Your task to perform on an android device: toggle pop-ups in chrome Image 0: 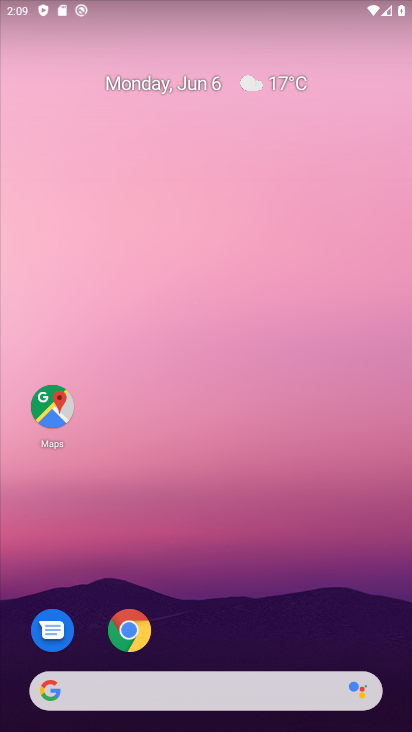
Step 0: drag from (220, 576) to (211, 7)
Your task to perform on an android device: toggle pop-ups in chrome Image 1: 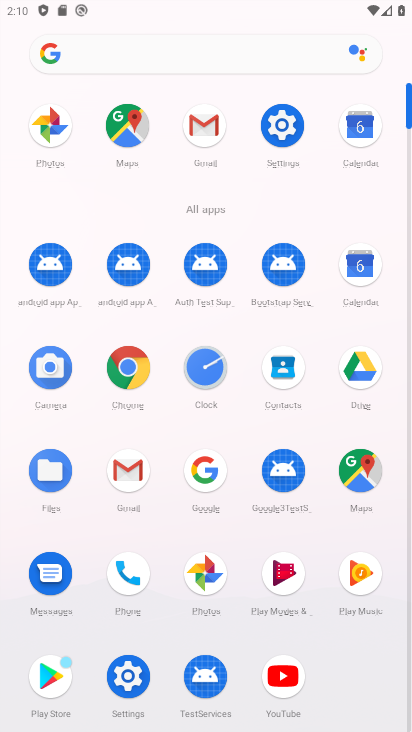
Step 1: click (127, 369)
Your task to perform on an android device: toggle pop-ups in chrome Image 2: 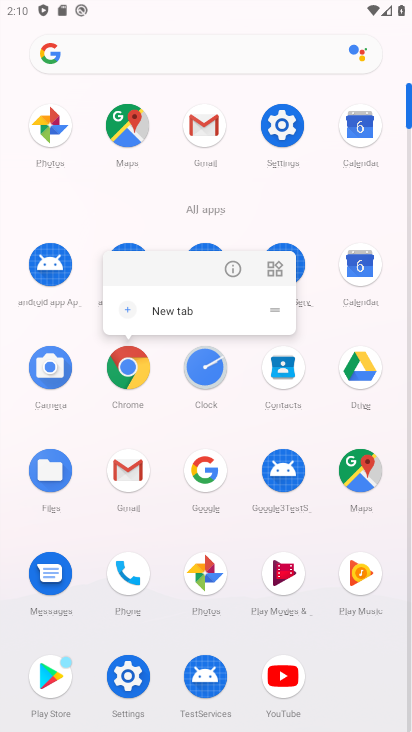
Step 2: click (131, 367)
Your task to perform on an android device: toggle pop-ups in chrome Image 3: 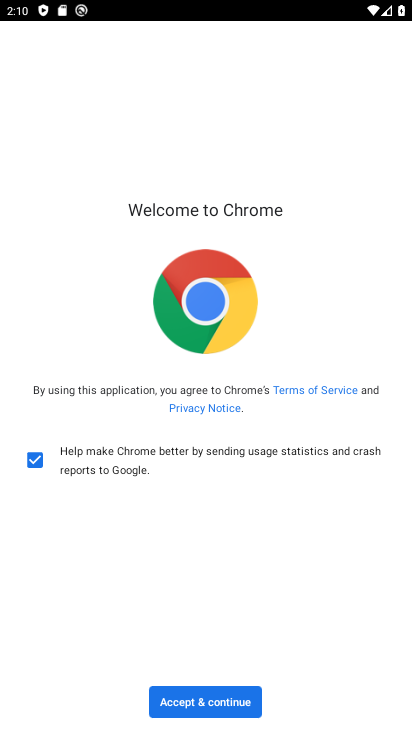
Step 3: click (235, 705)
Your task to perform on an android device: toggle pop-ups in chrome Image 4: 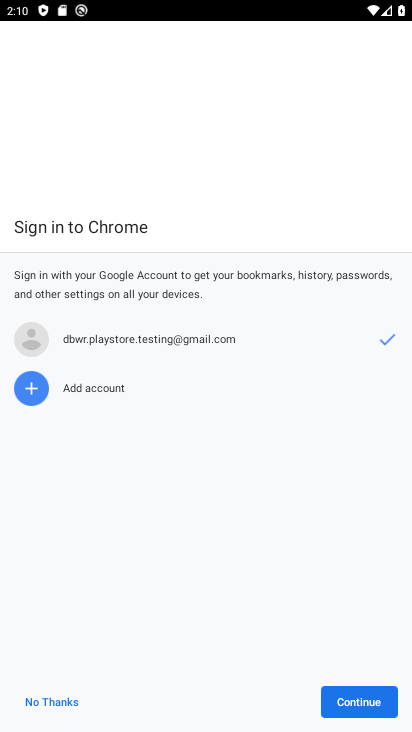
Step 4: click (345, 690)
Your task to perform on an android device: toggle pop-ups in chrome Image 5: 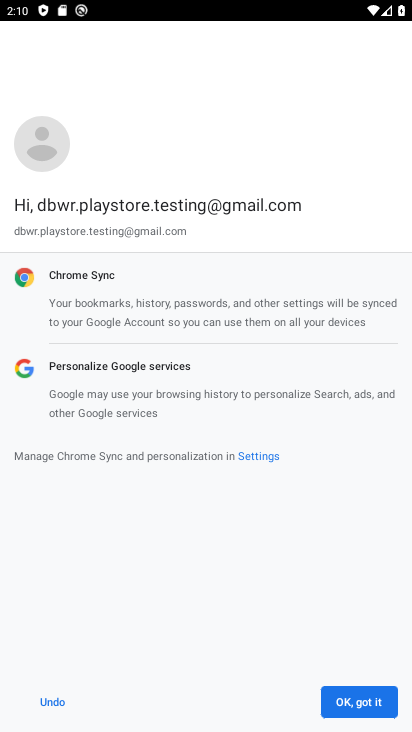
Step 5: click (345, 690)
Your task to perform on an android device: toggle pop-ups in chrome Image 6: 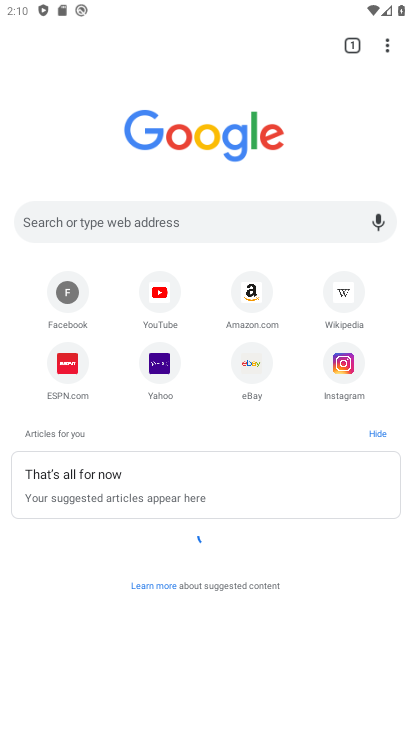
Step 6: click (110, 229)
Your task to perform on an android device: toggle pop-ups in chrome Image 7: 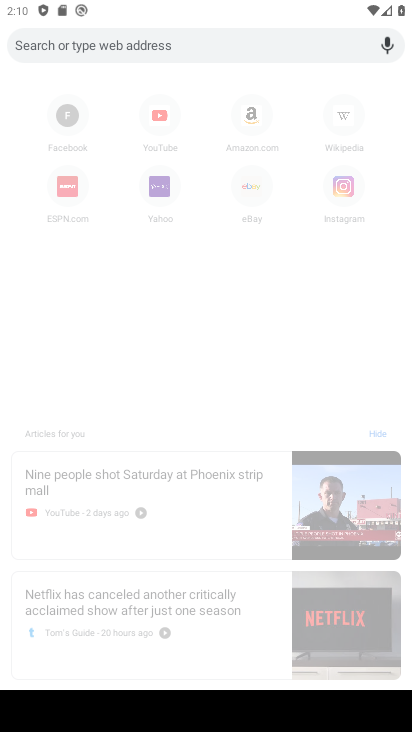
Step 7: press back button
Your task to perform on an android device: toggle pop-ups in chrome Image 8: 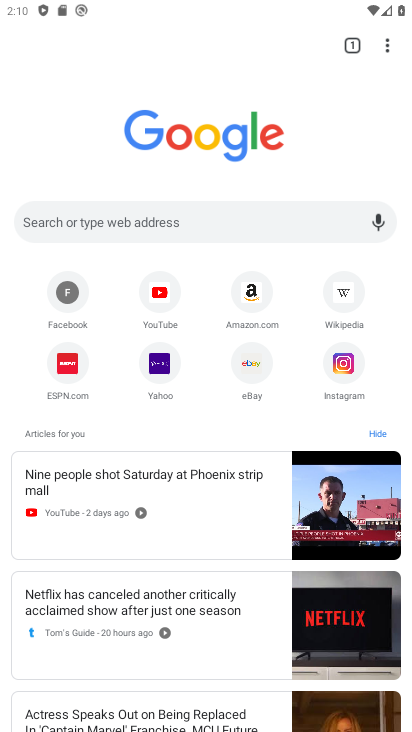
Step 8: drag from (391, 53) to (232, 375)
Your task to perform on an android device: toggle pop-ups in chrome Image 9: 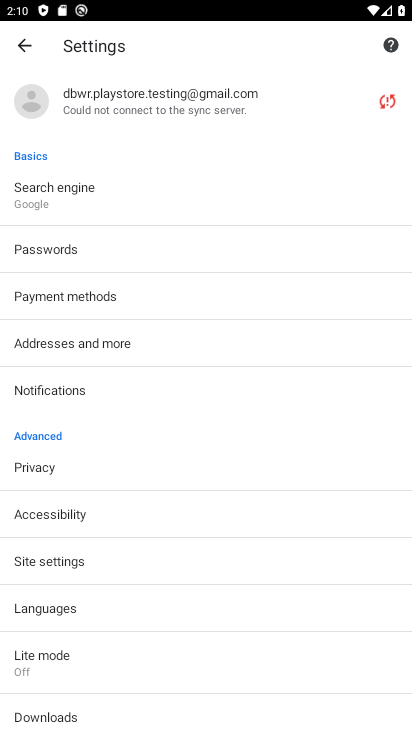
Step 9: drag from (167, 612) to (165, 391)
Your task to perform on an android device: toggle pop-ups in chrome Image 10: 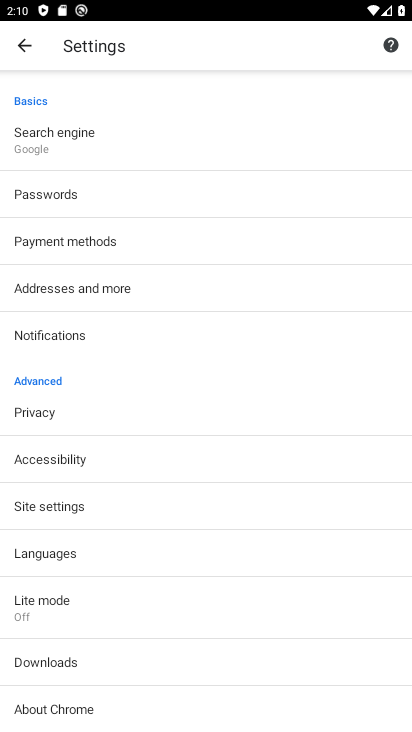
Step 10: click (91, 508)
Your task to perform on an android device: toggle pop-ups in chrome Image 11: 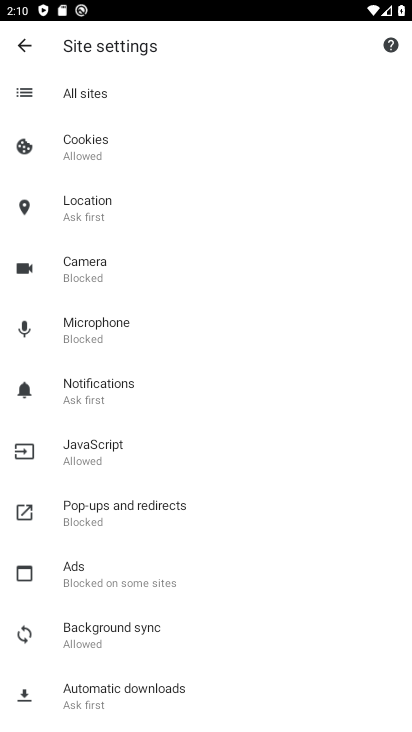
Step 11: click (92, 497)
Your task to perform on an android device: toggle pop-ups in chrome Image 12: 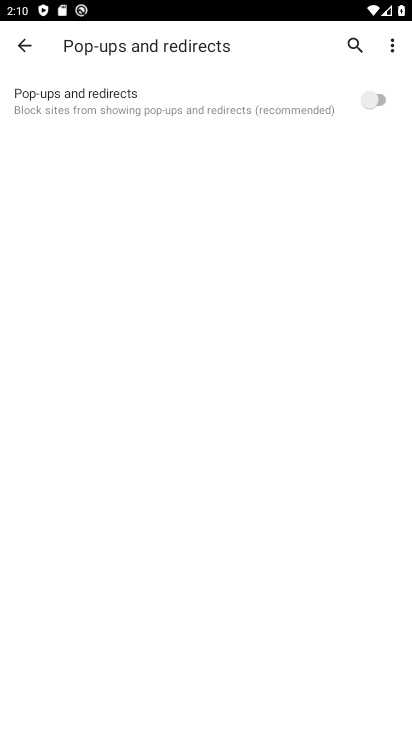
Step 12: click (375, 99)
Your task to perform on an android device: toggle pop-ups in chrome Image 13: 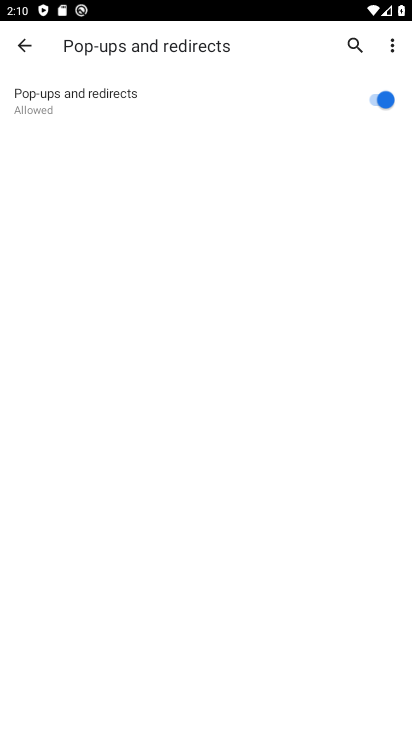
Step 13: task complete